Your task to perform on an android device: change the clock display to show seconds Image 0: 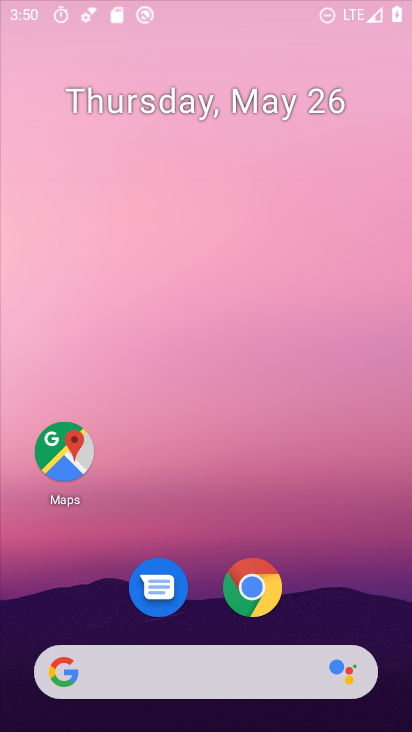
Step 0: drag from (328, 567) to (296, 184)
Your task to perform on an android device: change the clock display to show seconds Image 1: 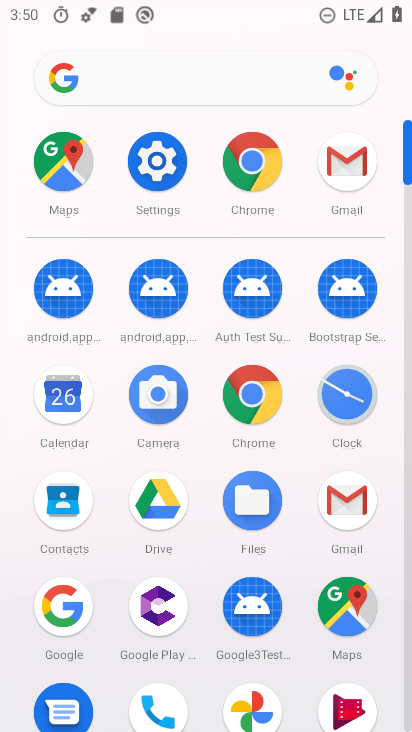
Step 1: click (338, 385)
Your task to perform on an android device: change the clock display to show seconds Image 2: 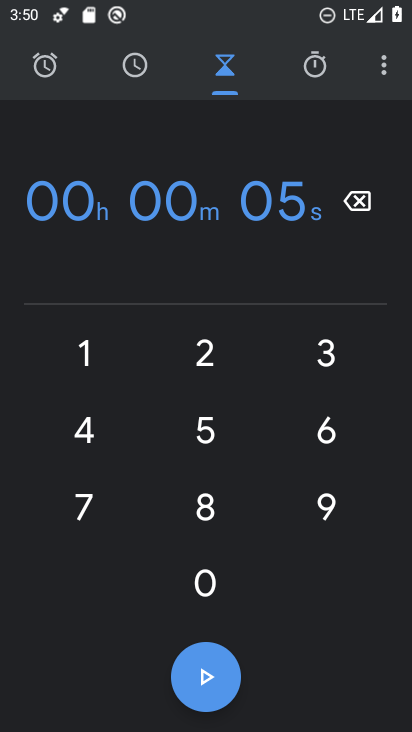
Step 2: drag from (383, 64) to (242, 135)
Your task to perform on an android device: change the clock display to show seconds Image 3: 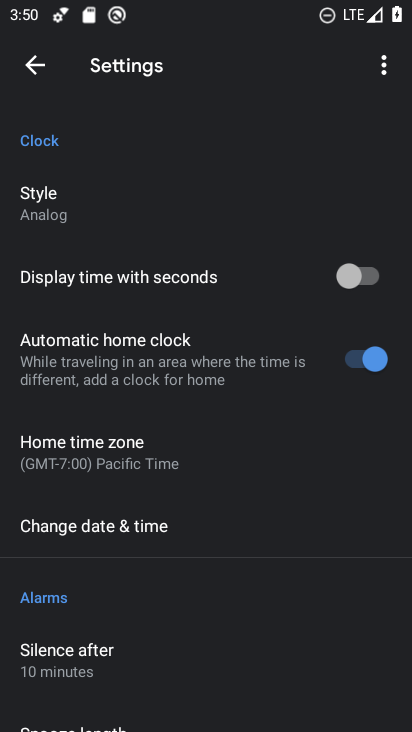
Step 3: click (356, 283)
Your task to perform on an android device: change the clock display to show seconds Image 4: 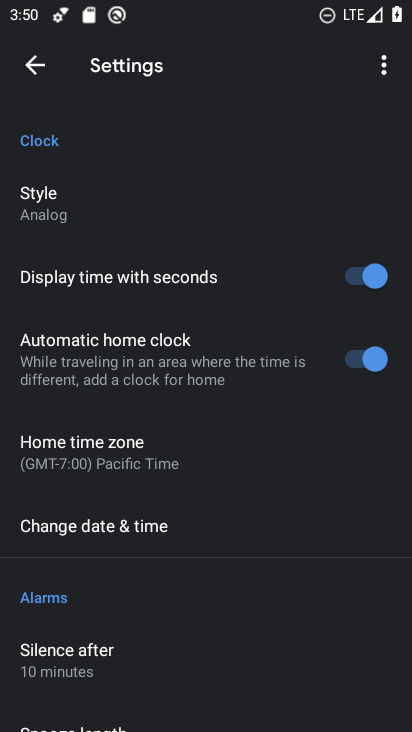
Step 4: task complete